Your task to perform on an android device: Open Reddit.com Image 0: 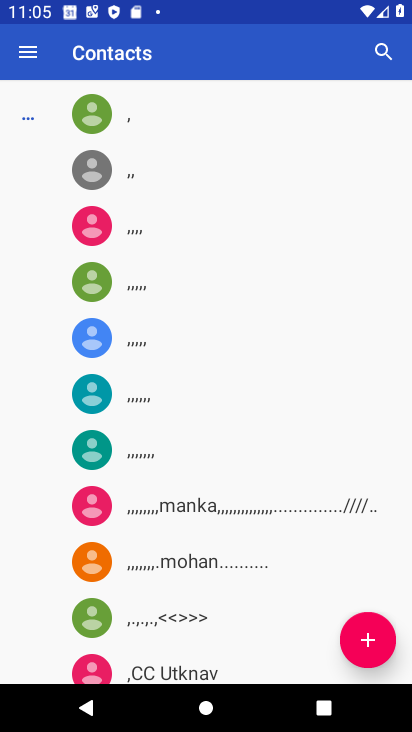
Step 0: press home button
Your task to perform on an android device: Open Reddit.com Image 1: 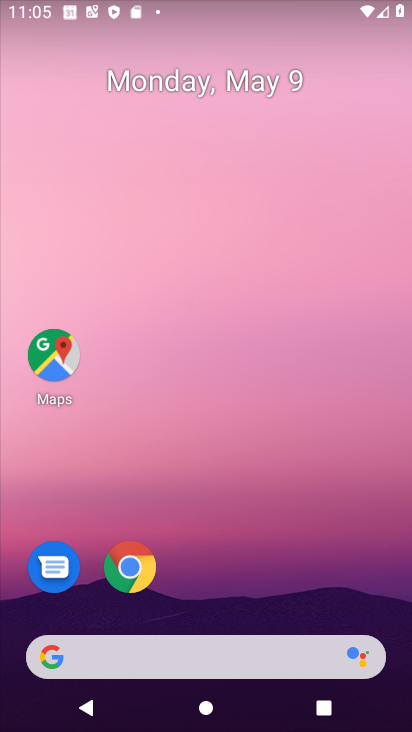
Step 1: click (82, 553)
Your task to perform on an android device: Open Reddit.com Image 2: 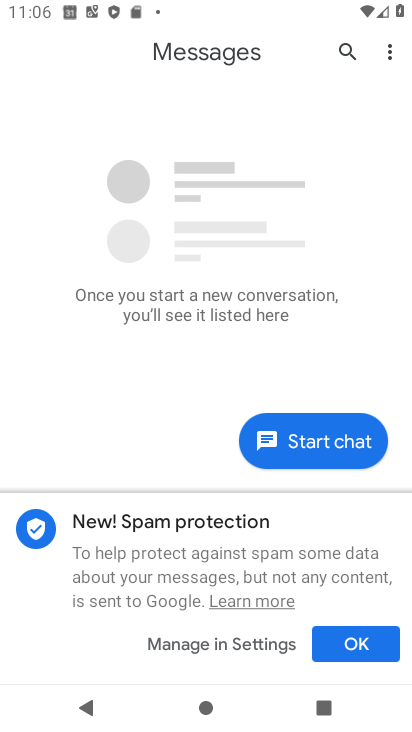
Step 2: press home button
Your task to perform on an android device: Open Reddit.com Image 3: 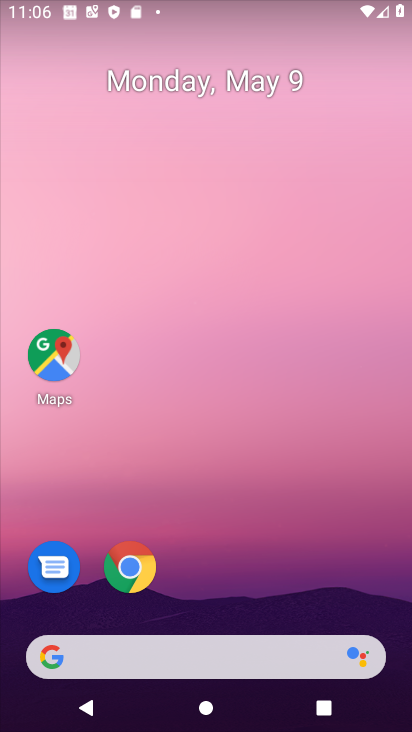
Step 3: click (140, 575)
Your task to perform on an android device: Open Reddit.com Image 4: 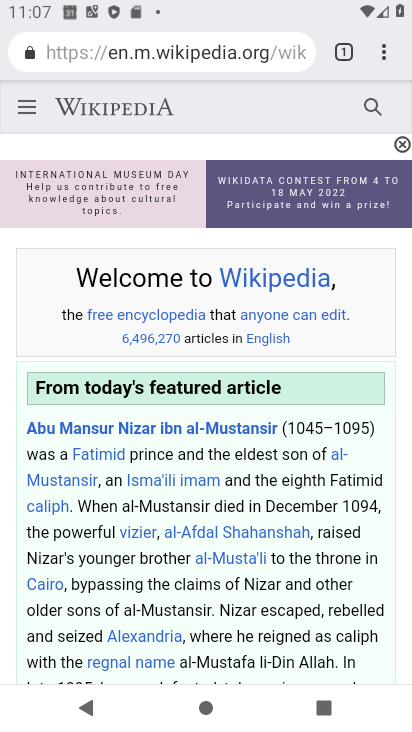
Step 4: click (189, 45)
Your task to perform on an android device: Open Reddit.com Image 5: 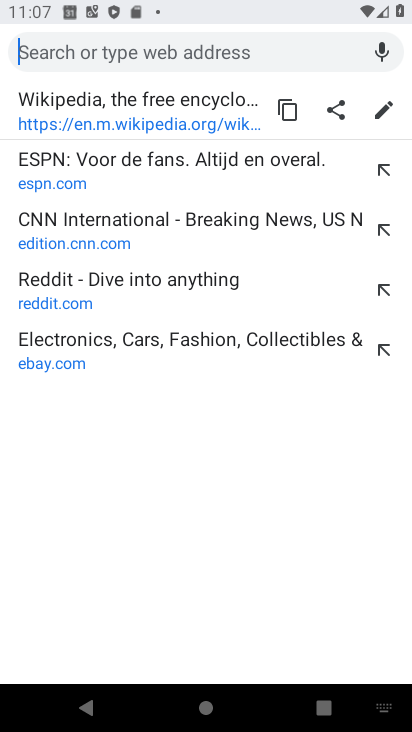
Step 5: click (119, 288)
Your task to perform on an android device: Open Reddit.com Image 6: 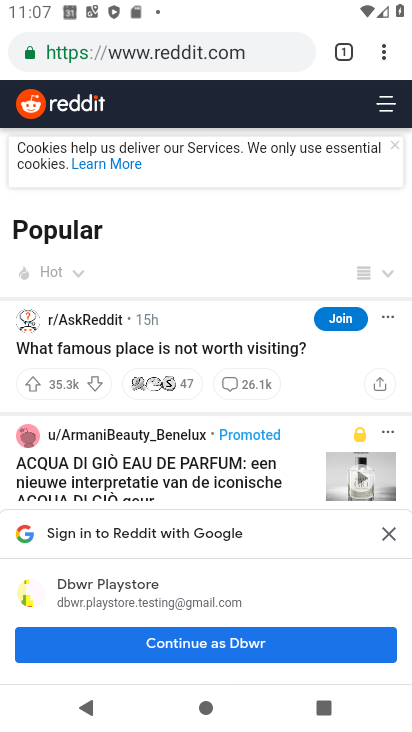
Step 6: task complete